Your task to perform on an android device: see sites visited before in the chrome app Image 0: 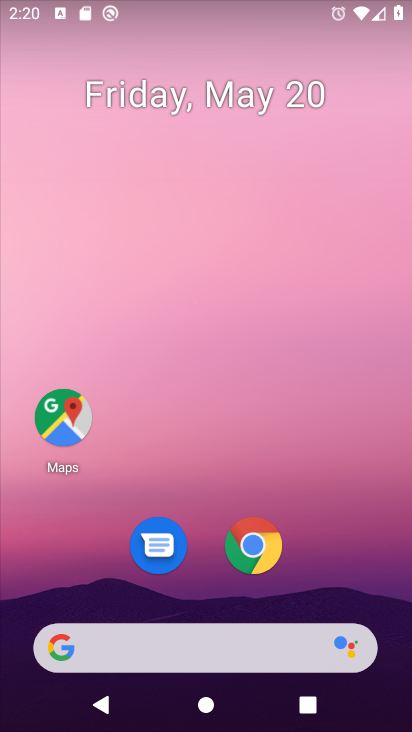
Step 0: drag from (332, 596) to (345, 0)
Your task to perform on an android device: see sites visited before in the chrome app Image 1: 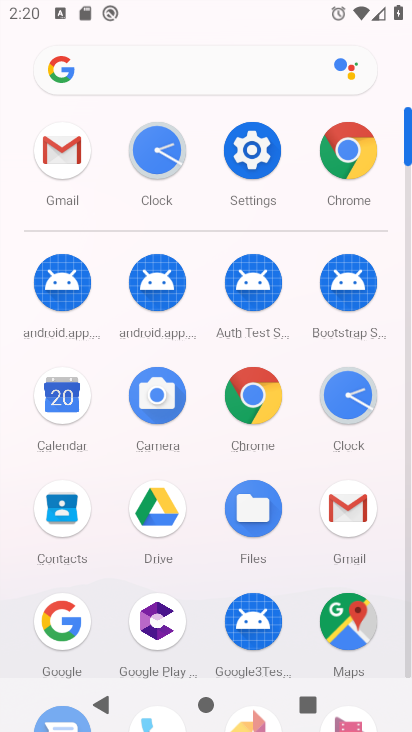
Step 1: click (270, 392)
Your task to perform on an android device: see sites visited before in the chrome app Image 2: 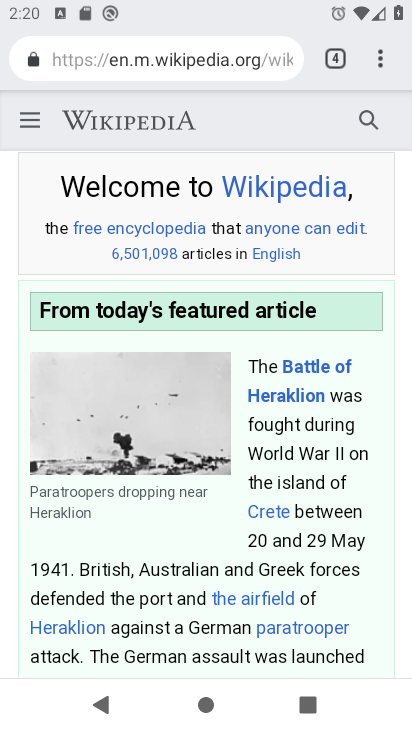
Step 2: task complete